Your task to perform on an android device: Open the map Image 0: 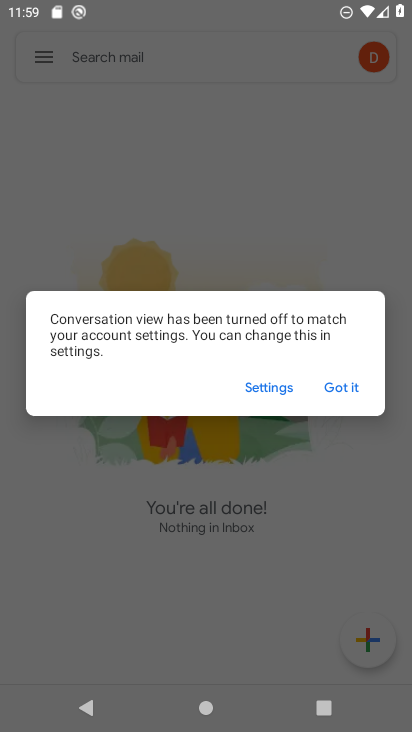
Step 0: press home button
Your task to perform on an android device: Open the map Image 1: 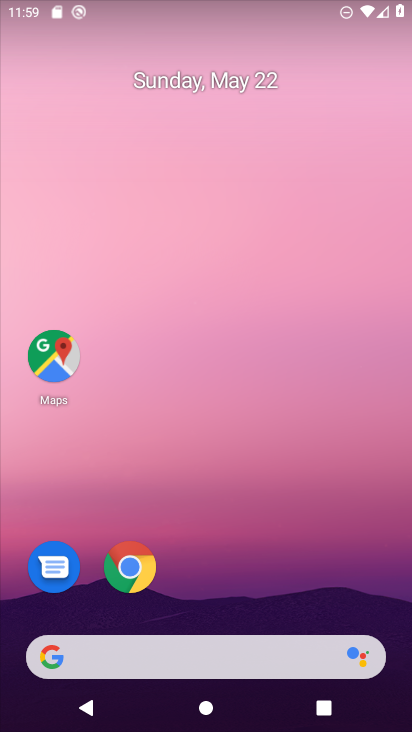
Step 1: click (58, 367)
Your task to perform on an android device: Open the map Image 2: 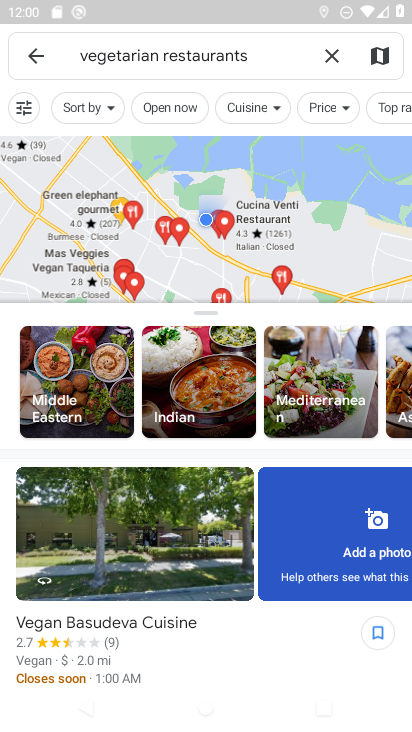
Step 2: task complete